Your task to perform on an android device: turn off smart reply in the gmail app Image 0: 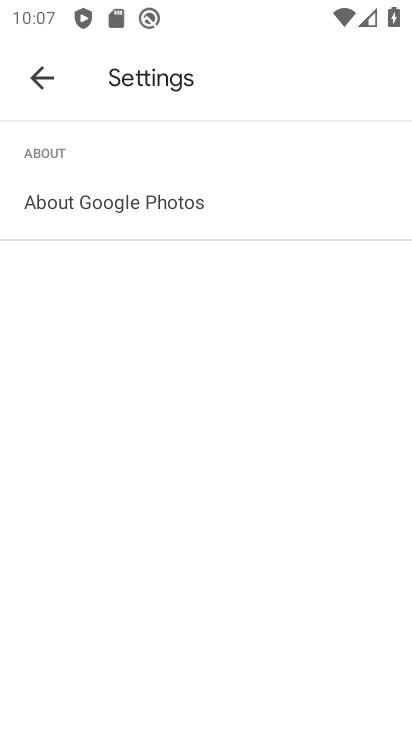
Step 0: press home button
Your task to perform on an android device: turn off smart reply in the gmail app Image 1: 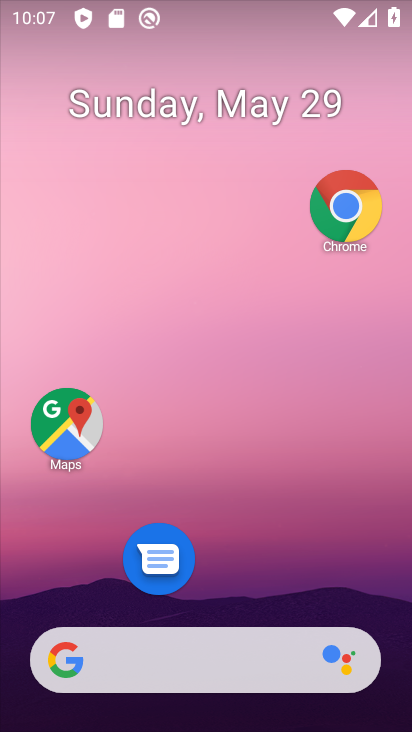
Step 1: drag from (229, 593) to (144, 17)
Your task to perform on an android device: turn off smart reply in the gmail app Image 2: 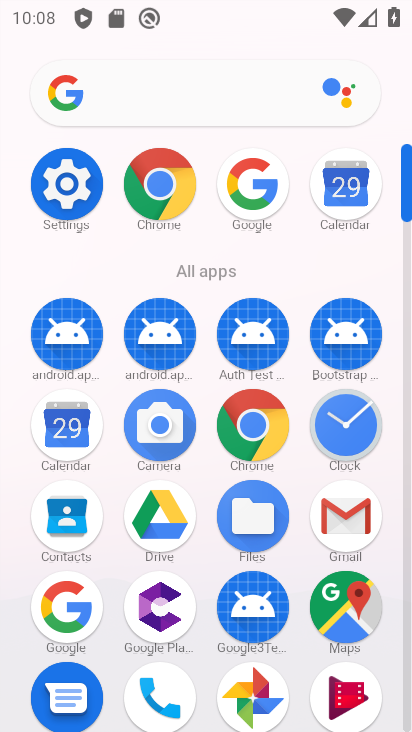
Step 2: click (334, 528)
Your task to perform on an android device: turn off smart reply in the gmail app Image 3: 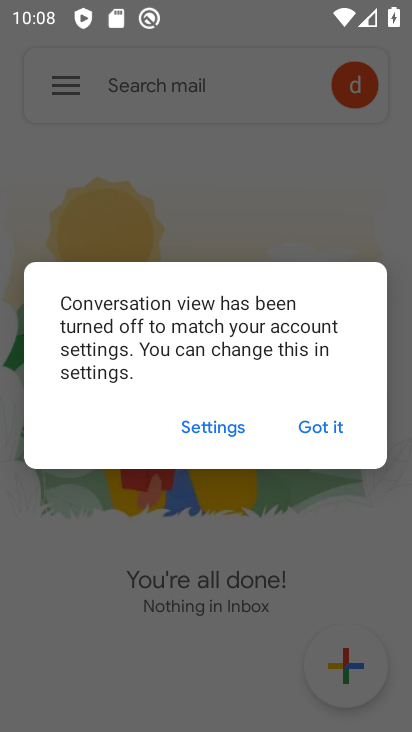
Step 3: click (336, 415)
Your task to perform on an android device: turn off smart reply in the gmail app Image 4: 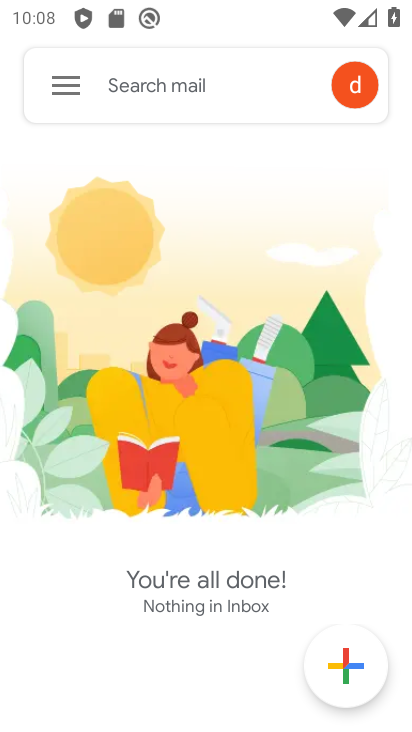
Step 4: click (61, 87)
Your task to perform on an android device: turn off smart reply in the gmail app Image 5: 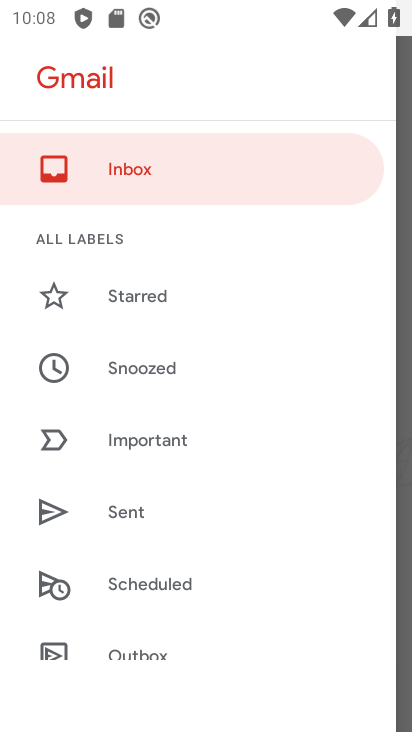
Step 5: drag from (168, 596) to (161, 140)
Your task to perform on an android device: turn off smart reply in the gmail app Image 6: 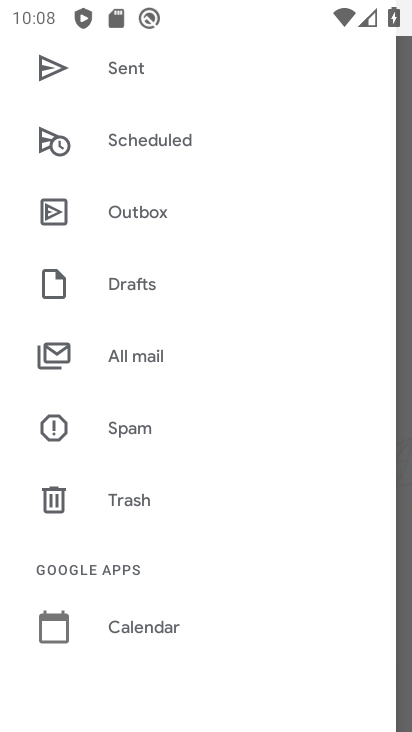
Step 6: drag from (137, 619) to (151, 235)
Your task to perform on an android device: turn off smart reply in the gmail app Image 7: 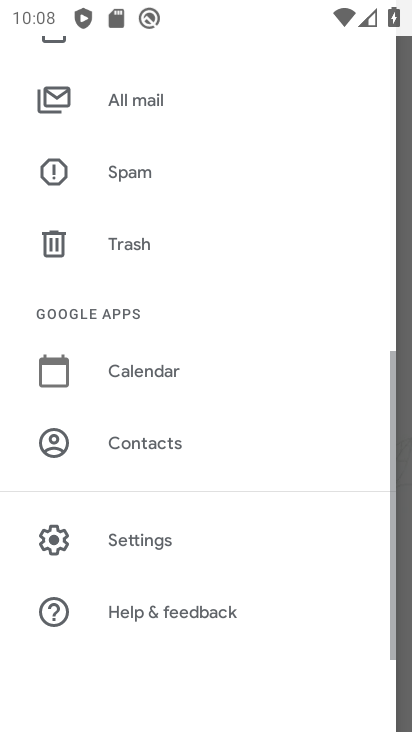
Step 7: click (119, 539)
Your task to perform on an android device: turn off smart reply in the gmail app Image 8: 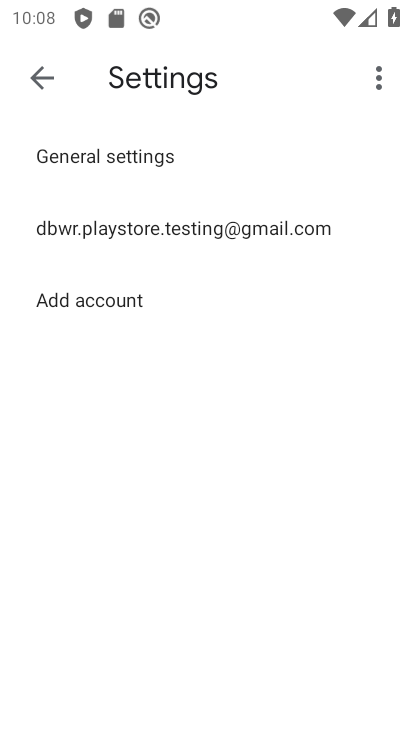
Step 8: click (172, 229)
Your task to perform on an android device: turn off smart reply in the gmail app Image 9: 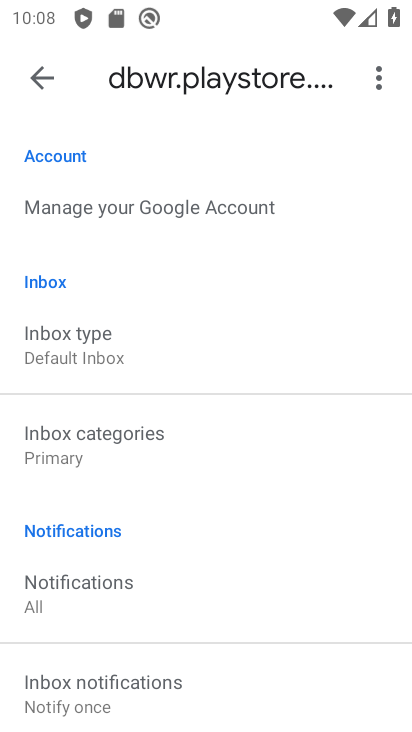
Step 9: drag from (99, 637) to (180, 163)
Your task to perform on an android device: turn off smart reply in the gmail app Image 10: 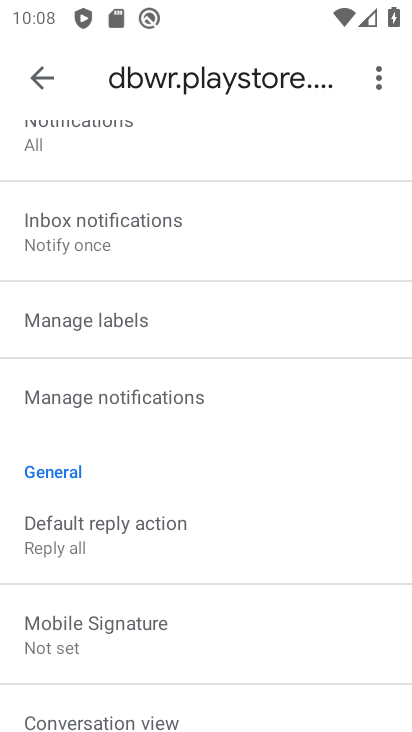
Step 10: drag from (105, 667) to (130, 259)
Your task to perform on an android device: turn off smart reply in the gmail app Image 11: 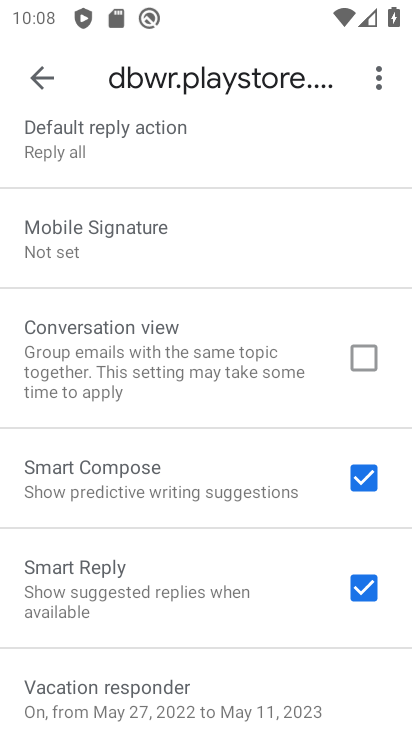
Step 11: drag from (129, 633) to (249, 181)
Your task to perform on an android device: turn off smart reply in the gmail app Image 12: 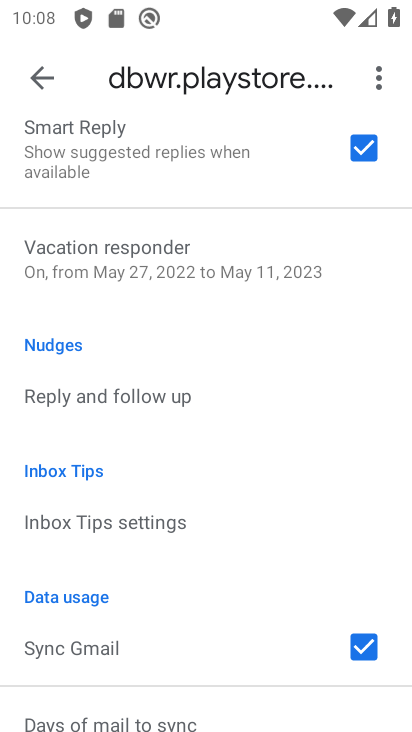
Step 12: drag from (107, 265) to (75, 590)
Your task to perform on an android device: turn off smart reply in the gmail app Image 13: 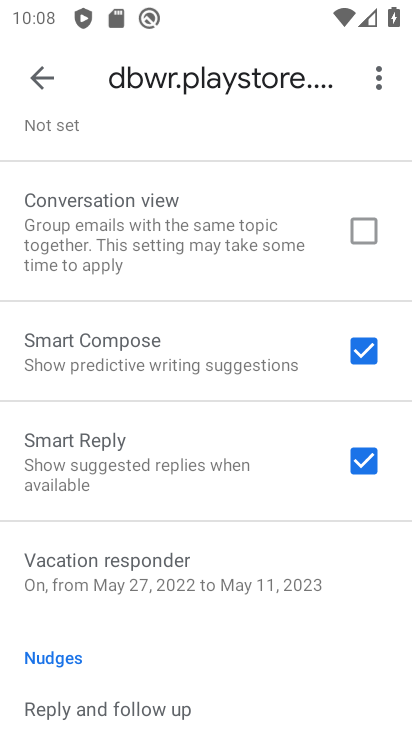
Step 13: click (371, 467)
Your task to perform on an android device: turn off smart reply in the gmail app Image 14: 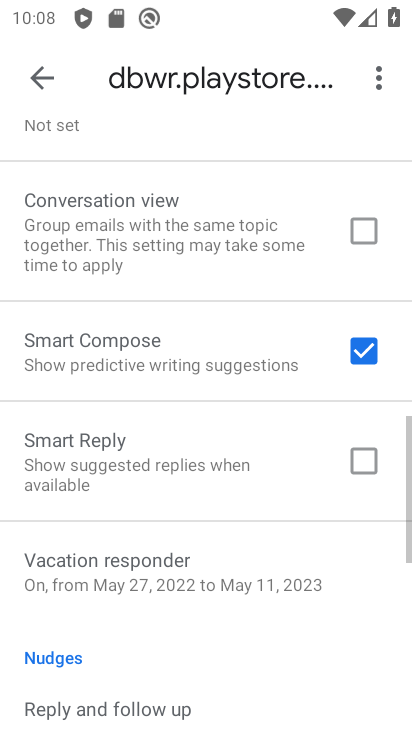
Step 14: task complete